Your task to perform on an android device: turn off sleep mode Image 0: 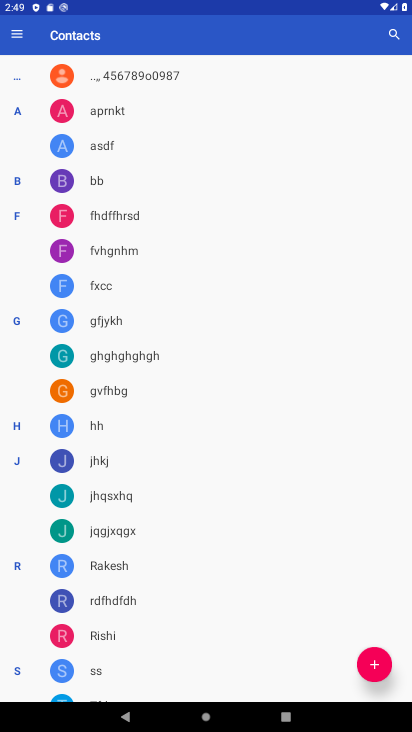
Step 0: press home button
Your task to perform on an android device: turn off sleep mode Image 1: 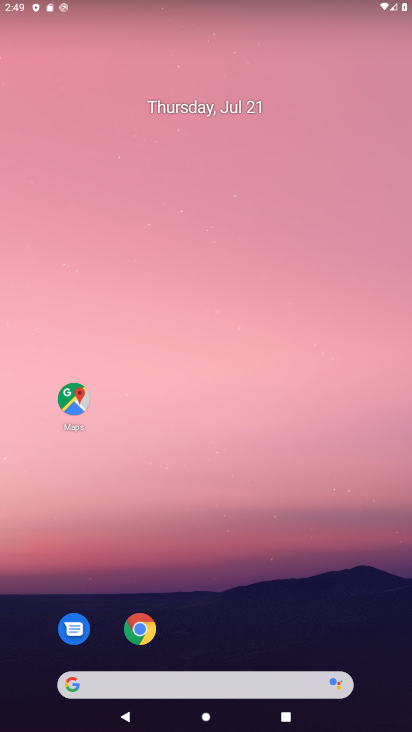
Step 1: drag from (384, 492) to (385, 26)
Your task to perform on an android device: turn off sleep mode Image 2: 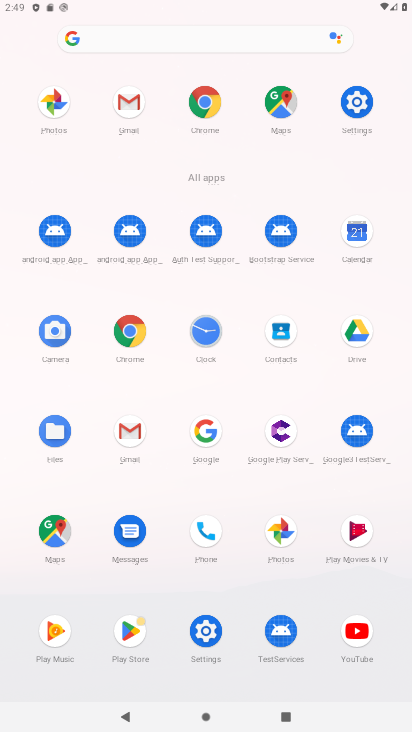
Step 2: click (368, 95)
Your task to perform on an android device: turn off sleep mode Image 3: 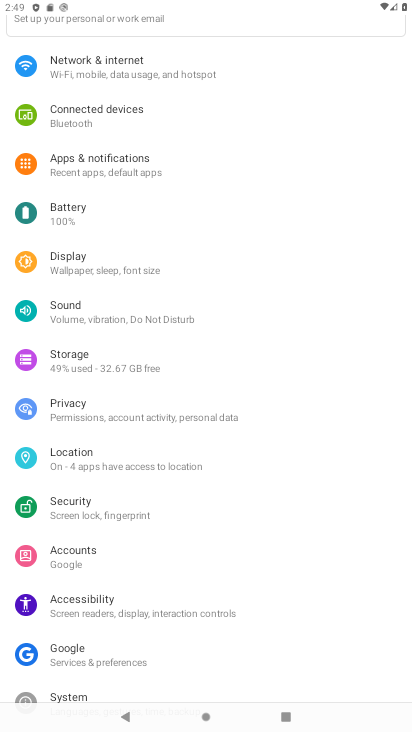
Step 3: click (72, 257)
Your task to perform on an android device: turn off sleep mode Image 4: 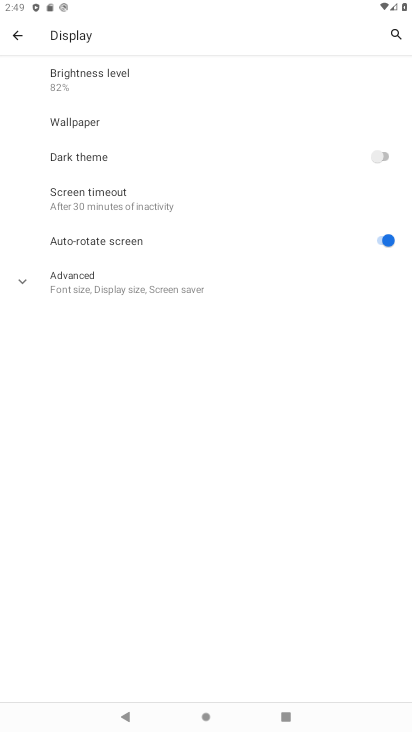
Step 4: click (73, 190)
Your task to perform on an android device: turn off sleep mode Image 5: 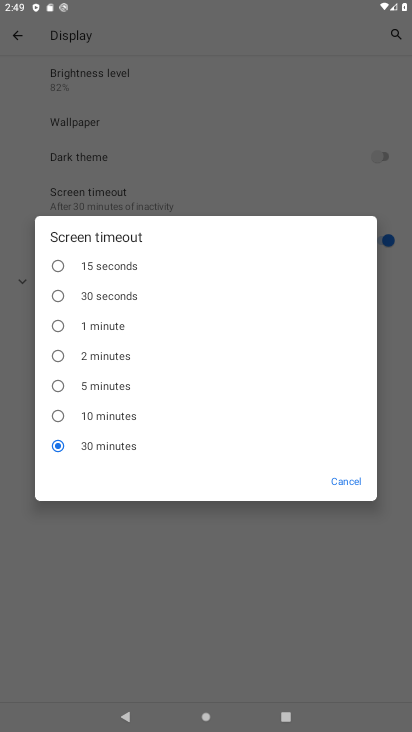
Step 5: task complete